Your task to perform on an android device: Open calendar and show me the fourth week of next month Image 0: 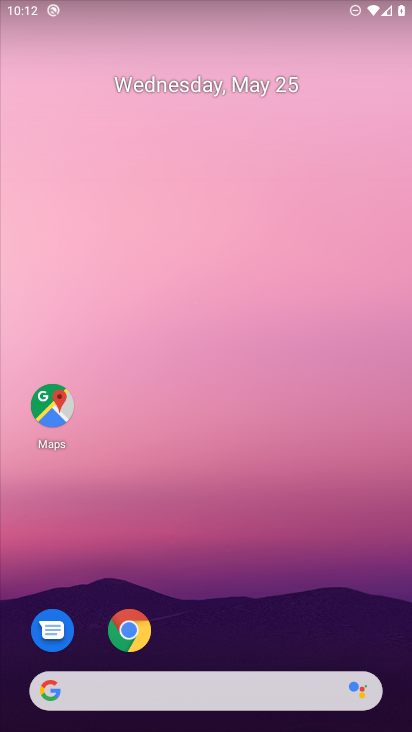
Step 0: drag from (202, 669) to (246, 314)
Your task to perform on an android device: Open calendar and show me the fourth week of next month Image 1: 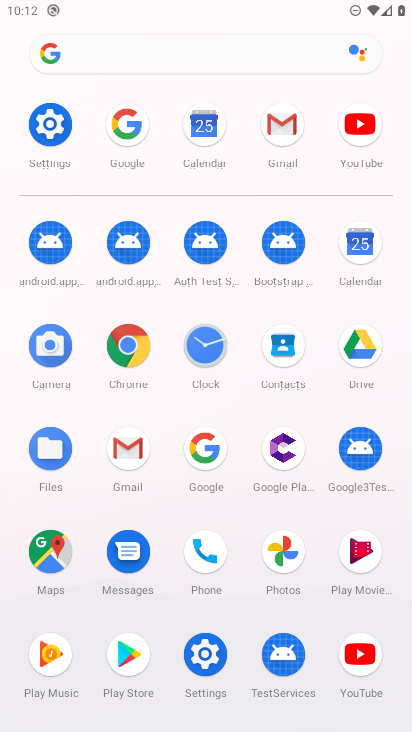
Step 1: click (202, 125)
Your task to perform on an android device: Open calendar and show me the fourth week of next month Image 2: 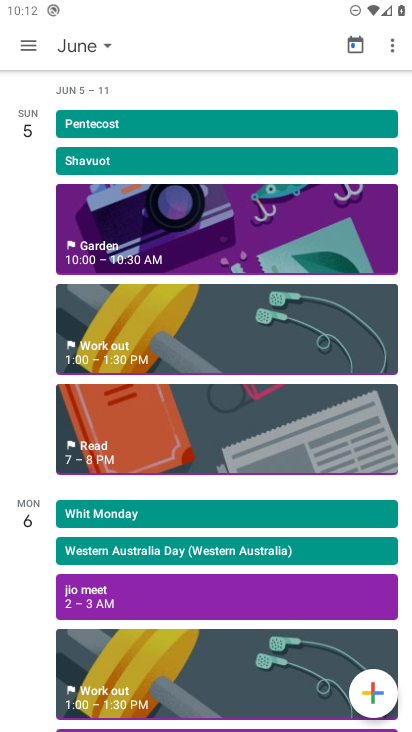
Step 2: click (106, 50)
Your task to perform on an android device: Open calendar and show me the fourth week of next month Image 3: 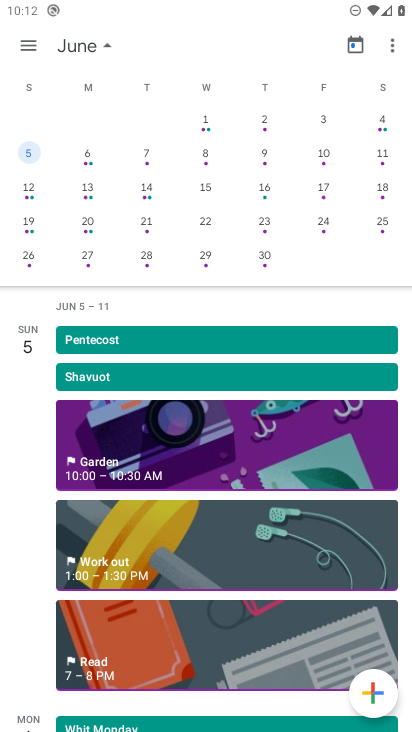
Step 3: click (37, 225)
Your task to perform on an android device: Open calendar and show me the fourth week of next month Image 4: 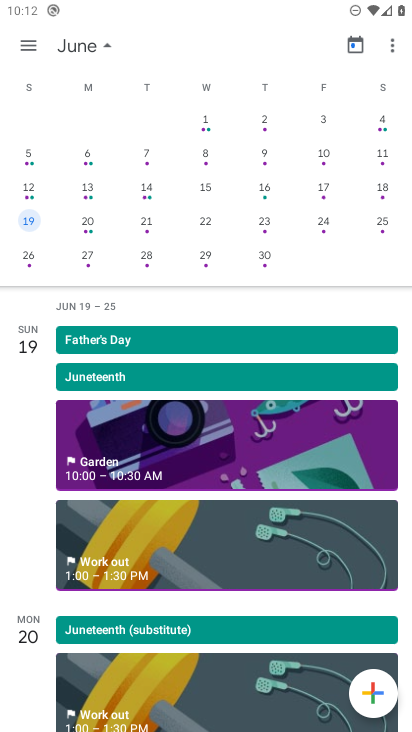
Step 4: task complete